Your task to perform on an android device: clear history in the chrome app Image 0: 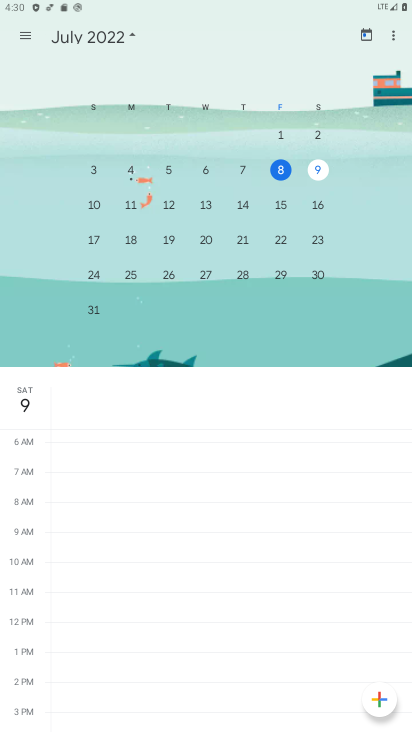
Step 0: press home button
Your task to perform on an android device: clear history in the chrome app Image 1: 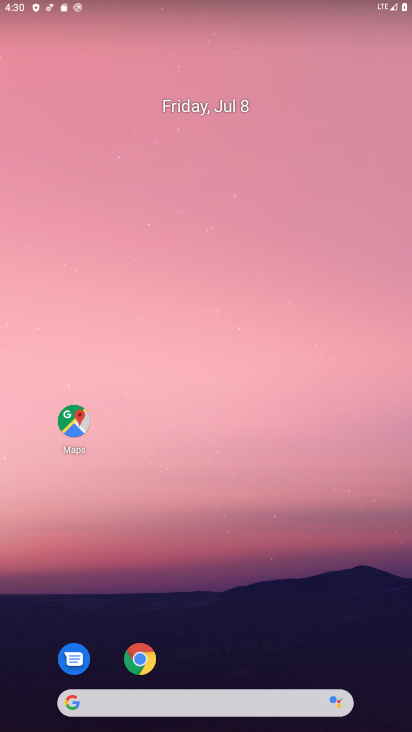
Step 1: click (131, 668)
Your task to perform on an android device: clear history in the chrome app Image 2: 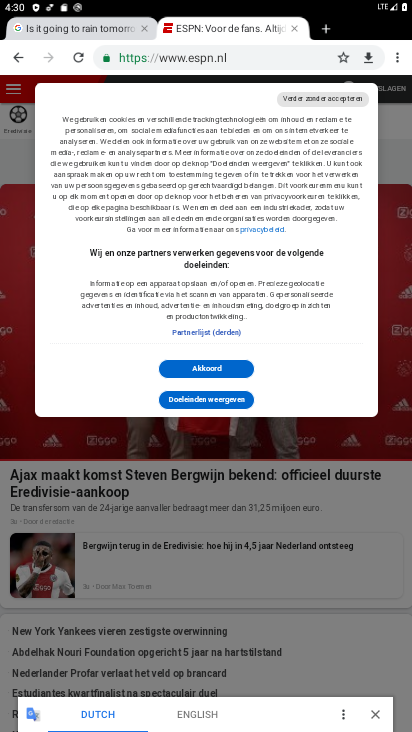
Step 2: drag from (402, 54) to (317, 163)
Your task to perform on an android device: clear history in the chrome app Image 3: 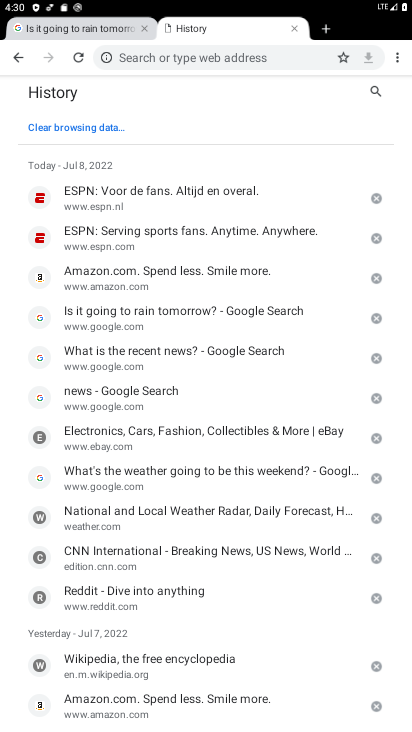
Step 3: click (34, 127)
Your task to perform on an android device: clear history in the chrome app Image 4: 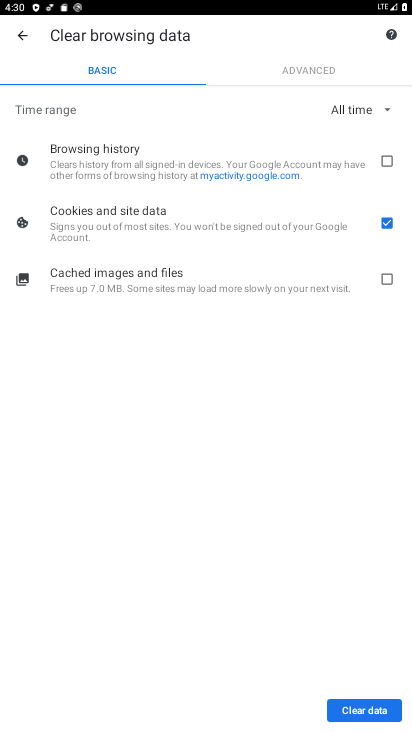
Step 4: click (385, 163)
Your task to perform on an android device: clear history in the chrome app Image 5: 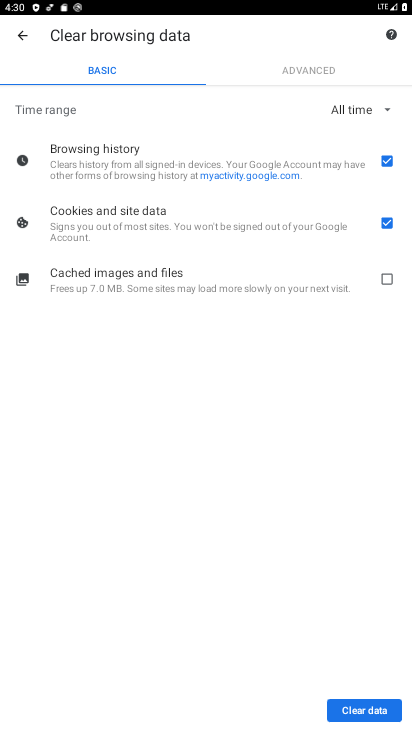
Step 5: click (366, 715)
Your task to perform on an android device: clear history in the chrome app Image 6: 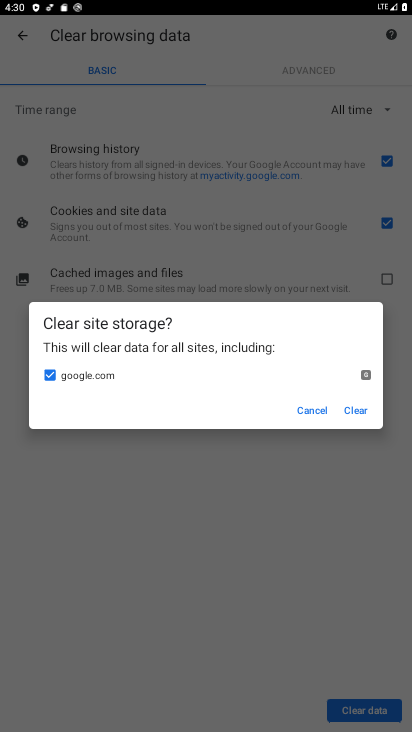
Step 6: click (343, 416)
Your task to perform on an android device: clear history in the chrome app Image 7: 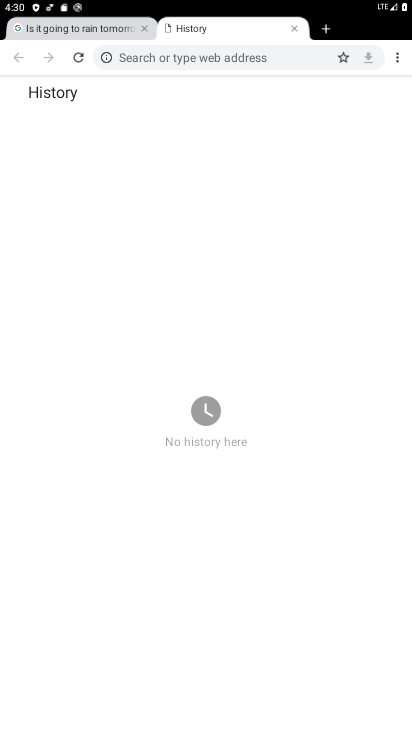
Step 7: task complete